Your task to perform on an android device: See recent photos Image 0: 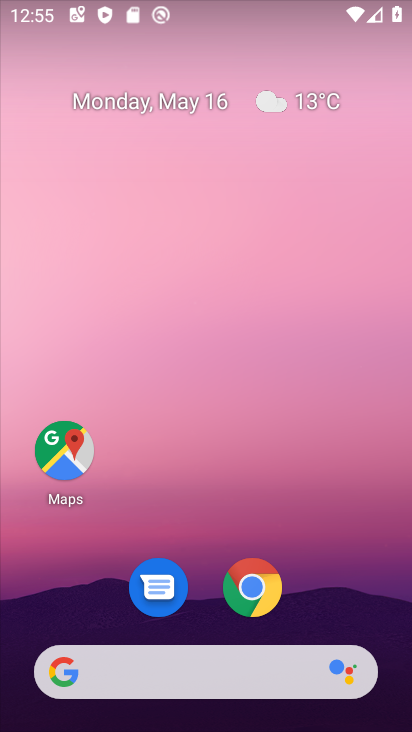
Step 0: drag from (222, 718) to (215, 249)
Your task to perform on an android device: See recent photos Image 1: 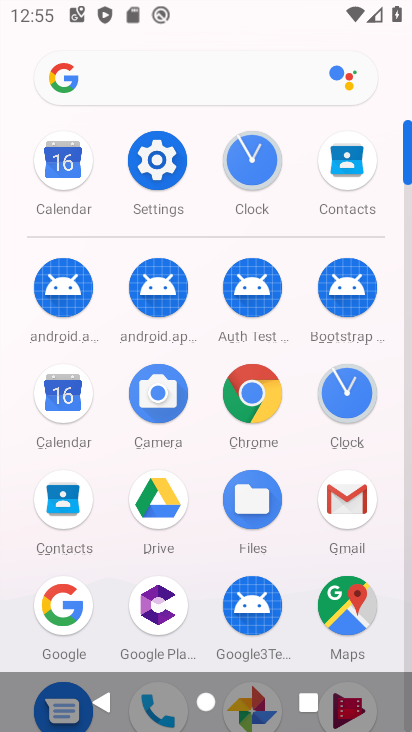
Step 1: drag from (268, 640) to (266, 332)
Your task to perform on an android device: See recent photos Image 2: 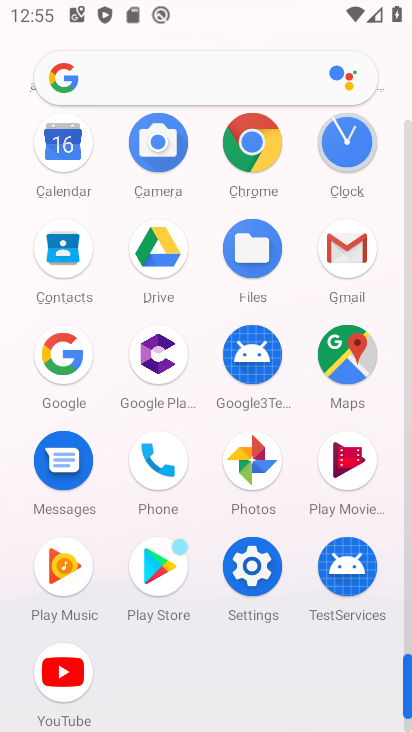
Step 2: click (251, 465)
Your task to perform on an android device: See recent photos Image 3: 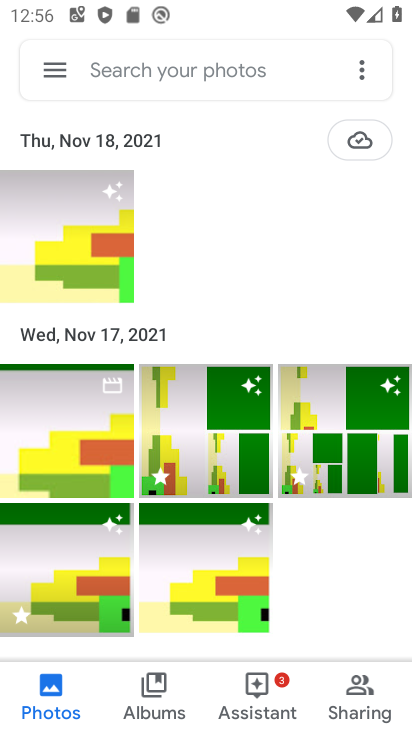
Step 3: click (52, 273)
Your task to perform on an android device: See recent photos Image 4: 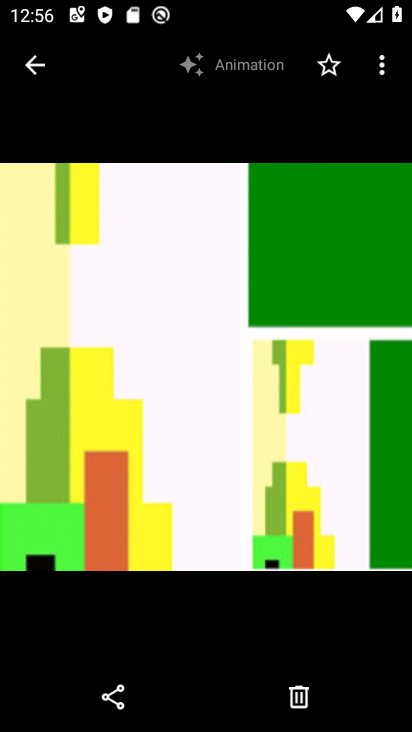
Step 4: task complete